Your task to perform on an android device: What's the weather going to be tomorrow? Image 0: 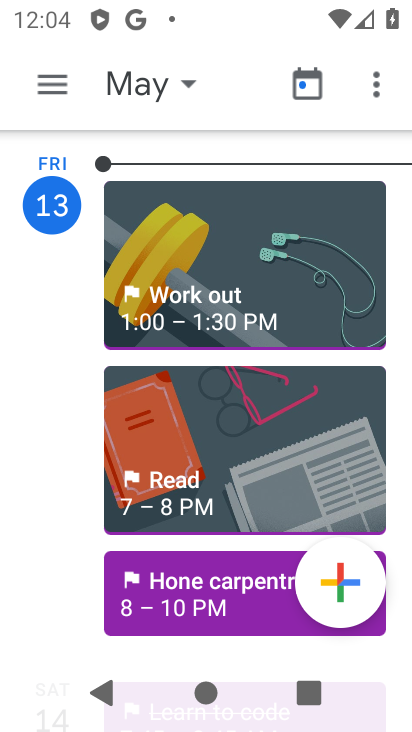
Step 0: press back button
Your task to perform on an android device: What's the weather going to be tomorrow? Image 1: 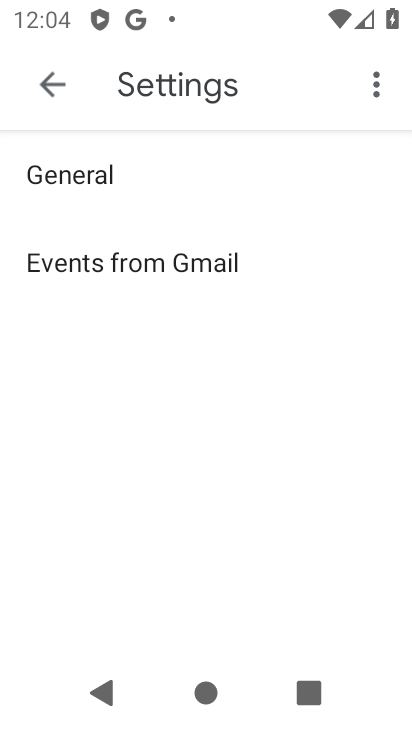
Step 1: press back button
Your task to perform on an android device: What's the weather going to be tomorrow? Image 2: 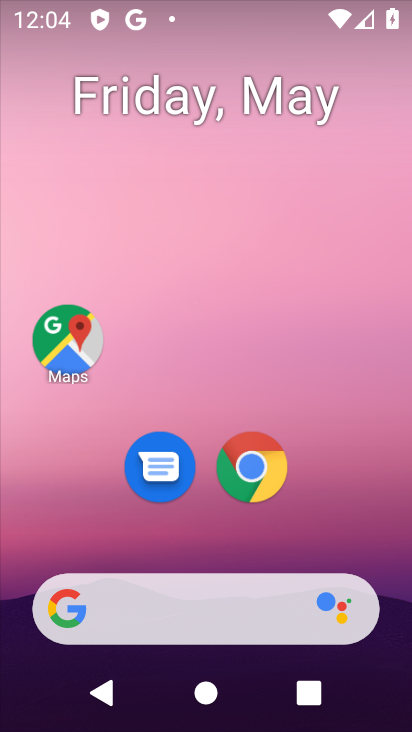
Step 2: press back button
Your task to perform on an android device: What's the weather going to be tomorrow? Image 3: 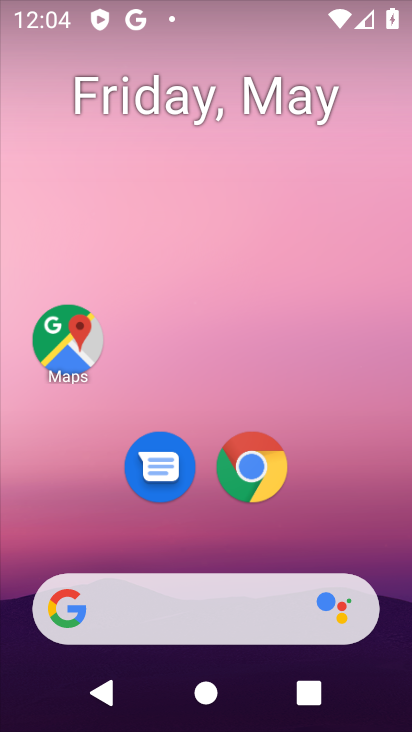
Step 3: drag from (332, 521) to (243, 100)
Your task to perform on an android device: What's the weather going to be tomorrow? Image 4: 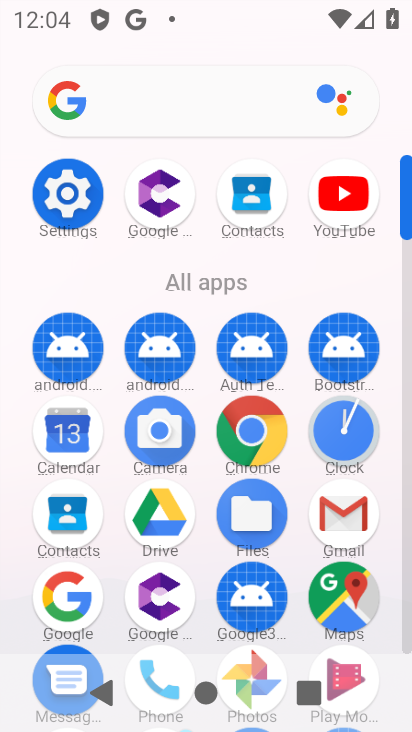
Step 4: drag from (199, 400) to (215, 162)
Your task to perform on an android device: What's the weather going to be tomorrow? Image 5: 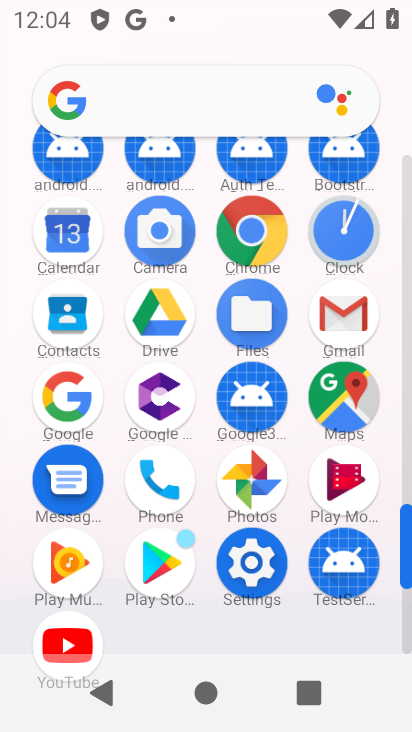
Step 5: click (62, 396)
Your task to perform on an android device: What's the weather going to be tomorrow? Image 6: 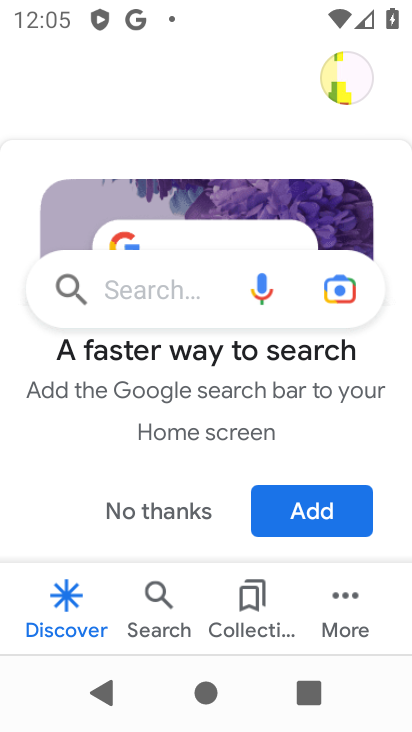
Step 6: click (170, 291)
Your task to perform on an android device: What's the weather going to be tomorrow? Image 7: 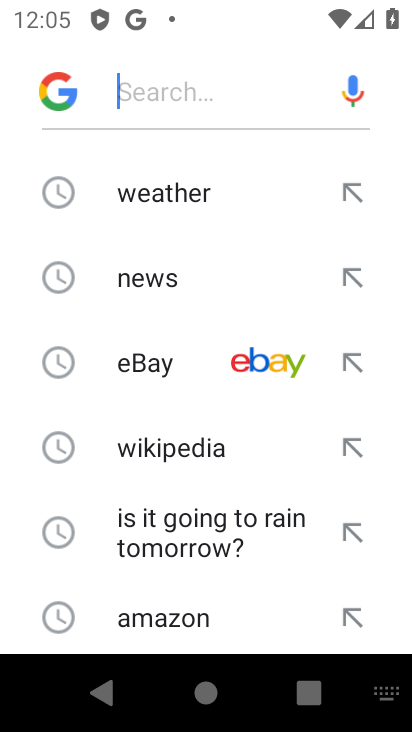
Step 7: type "weather tomorrow"
Your task to perform on an android device: What's the weather going to be tomorrow? Image 8: 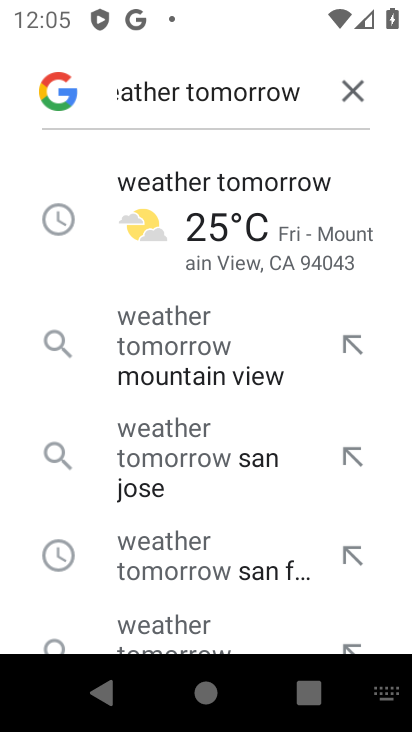
Step 8: click (226, 182)
Your task to perform on an android device: What's the weather going to be tomorrow? Image 9: 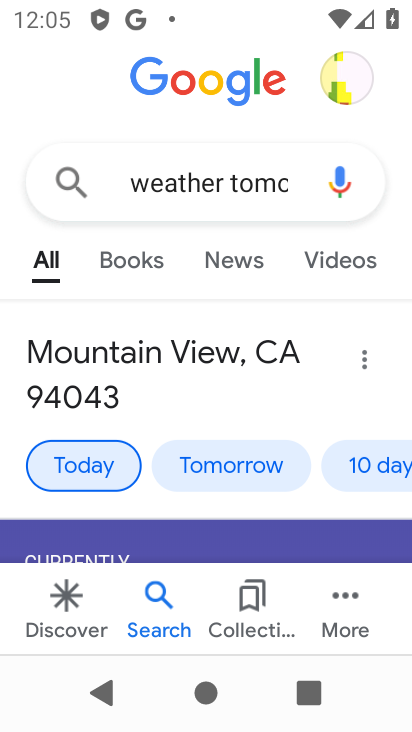
Step 9: drag from (233, 405) to (279, 167)
Your task to perform on an android device: What's the weather going to be tomorrow? Image 10: 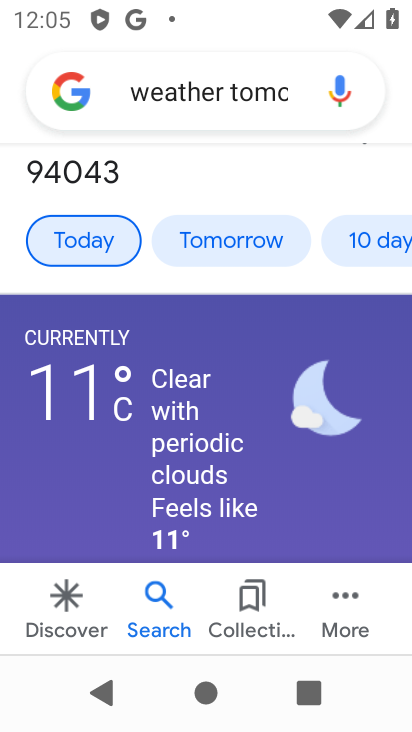
Step 10: click (236, 239)
Your task to perform on an android device: What's the weather going to be tomorrow? Image 11: 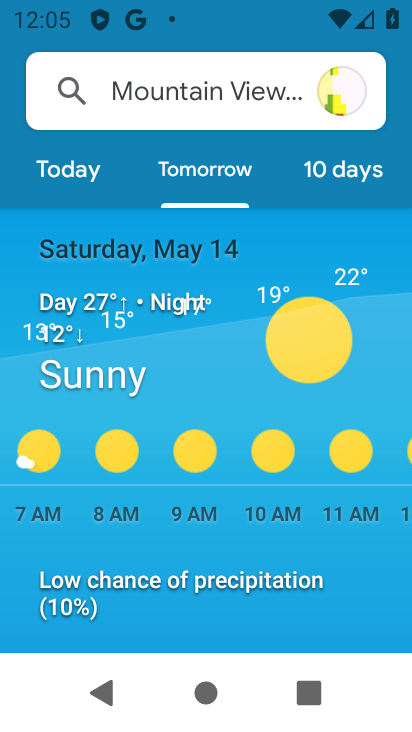
Step 11: task complete